Your task to perform on an android device: change alarm snooze length Image 0: 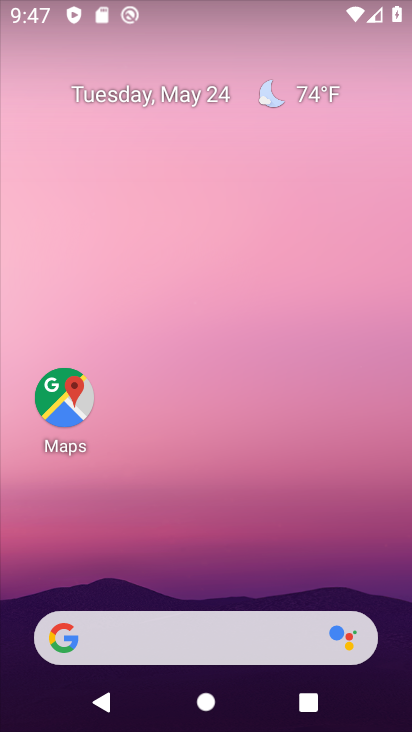
Step 0: drag from (201, 602) to (99, 21)
Your task to perform on an android device: change alarm snooze length Image 1: 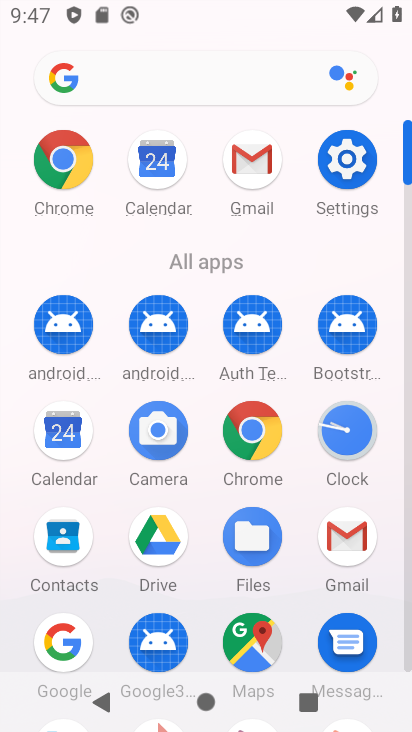
Step 1: click (349, 414)
Your task to perform on an android device: change alarm snooze length Image 2: 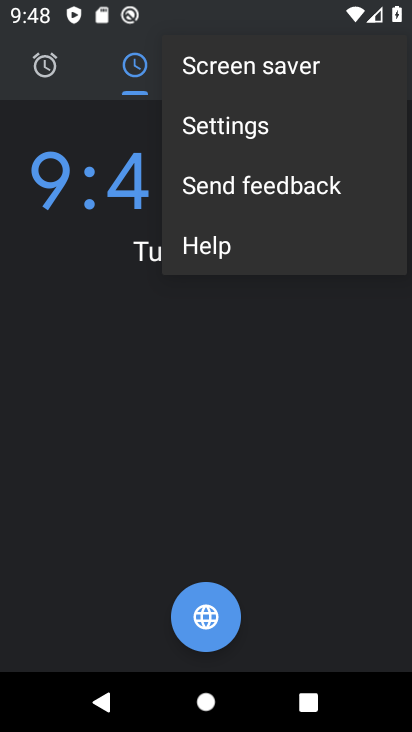
Step 2: click (224, 122)
Your task to perform on an android device: change alarm snooze length Image 3: 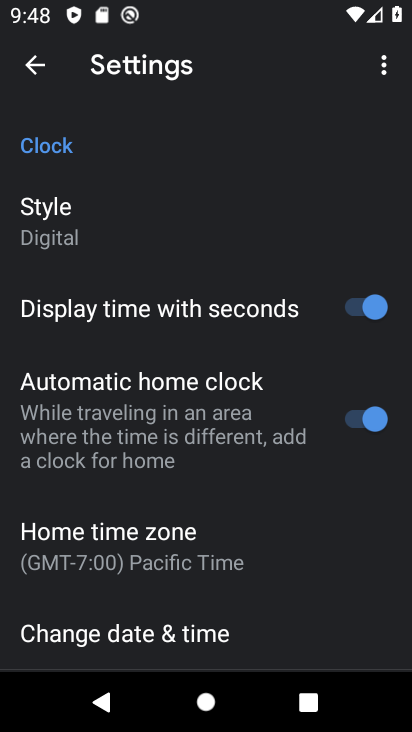
Step 3: drag from (263, 603) to (246, 147)
Your task to perform on an android device: change alarm snooze length Image 4: 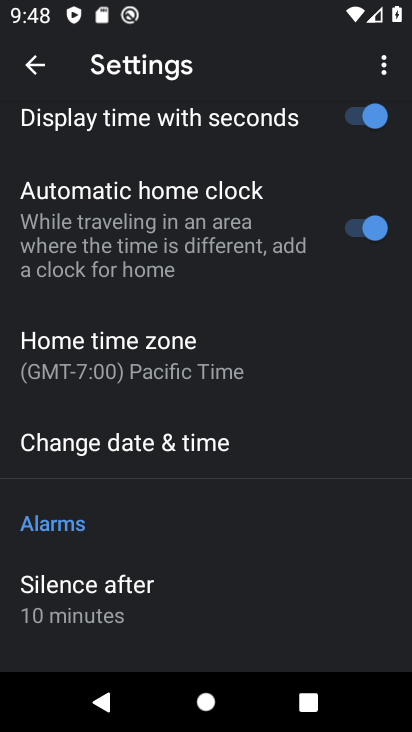
Step 4: drag from (277, 627) to (222, 71)
Your task to perform on an android device: change alarm snooze length Image 5: 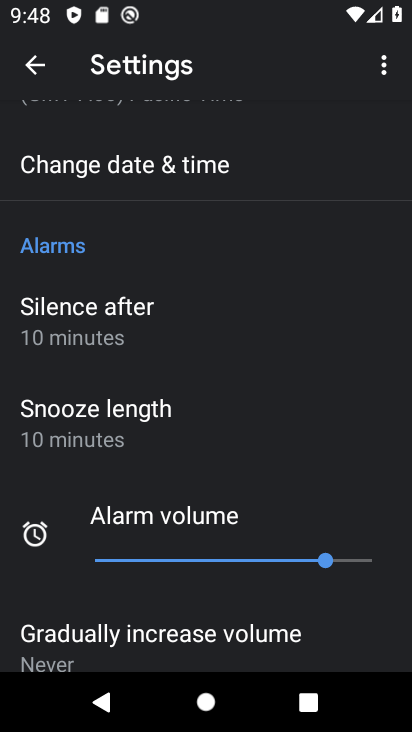
Step 5: click (111, 414)
Your task to perform on an android device: change alarm snooze length Image 6: 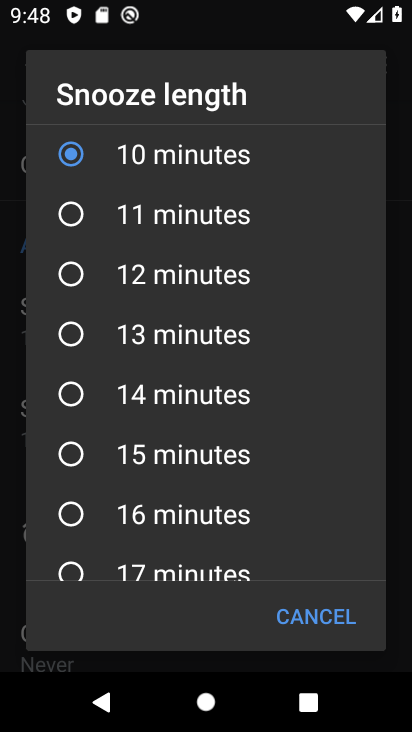
Step 6: click (72, 212)
Your task to perform on an android device: change alarm snooze length Image 7: 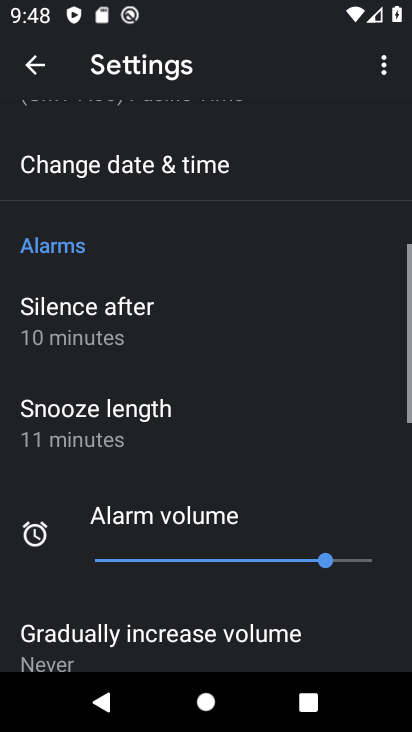
Step 7: task complete